Your task to perform on an android device: turn on data saver in the chrome app Image 0: 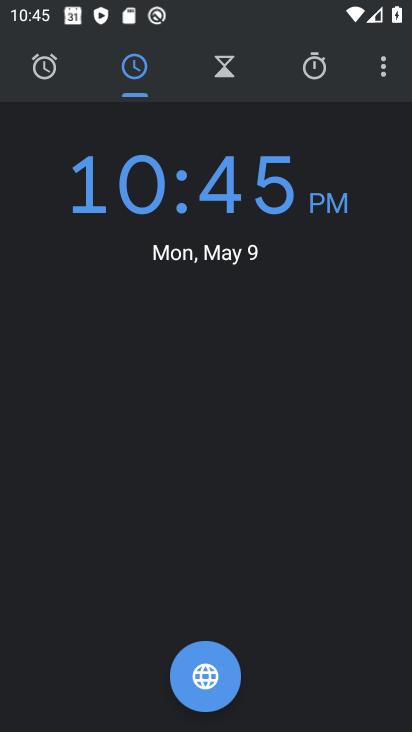
Step 0: press home button
Your task to perform on an android device: turn on data saver in the chrome app Image 1: 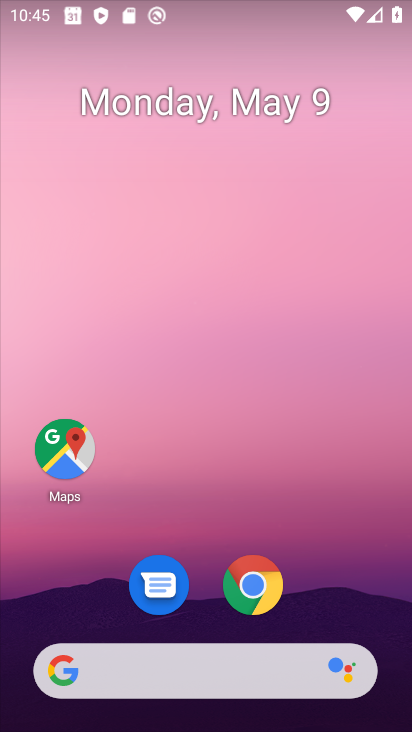
Step 1: click (245, 578)
Your task to perform on an android device: turn on data saver in the chrome app Image 2: 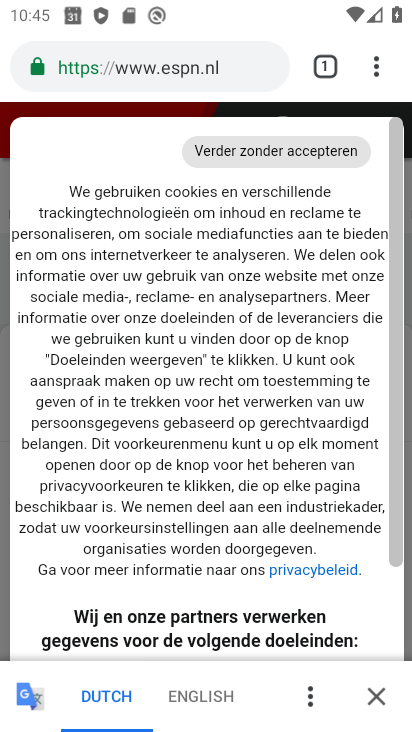
Step 2: click (375, 64)
Your task to perform on an android device: turn on data saver in the chrome app Image 3: 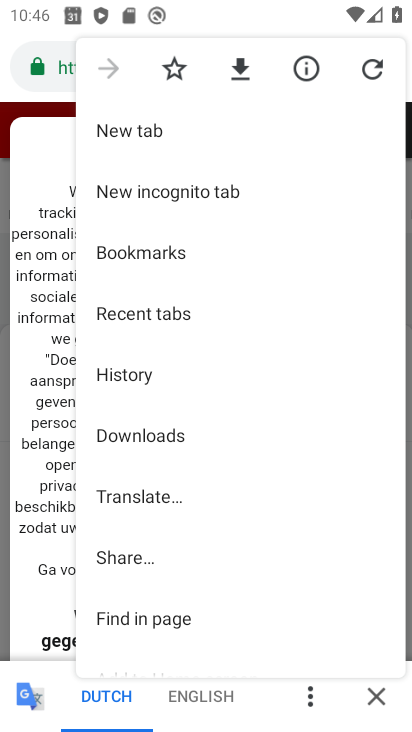
Step 3: drag from (250, 530) to (249, 185)
Your task to perform on an android device: turn on data saver in the chrome app Image 4: 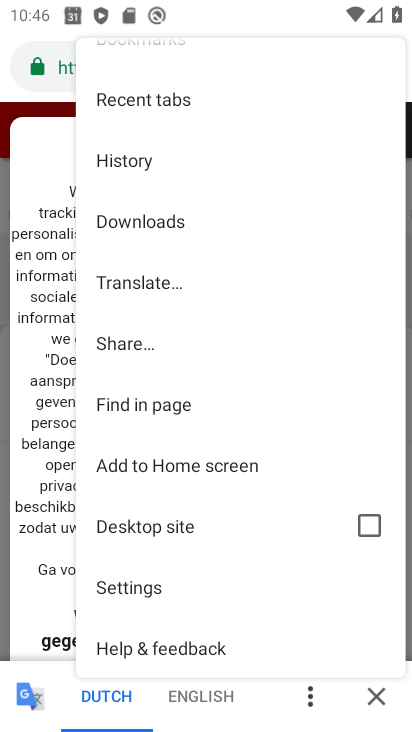
Step 4: click (151, 578)
Your task to perform on an android device: turn on data saver in the chrome app Image 5: 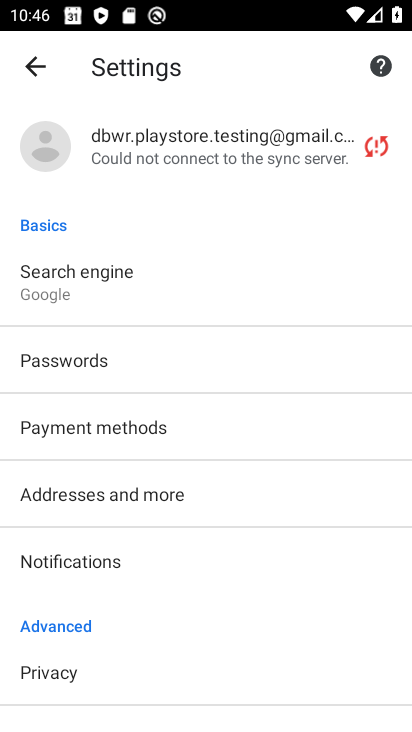
Step 5: drag from (256, 588) to (280, 160)
Your task to perform on an android device: turn on data saver in the chrome app Image 6: 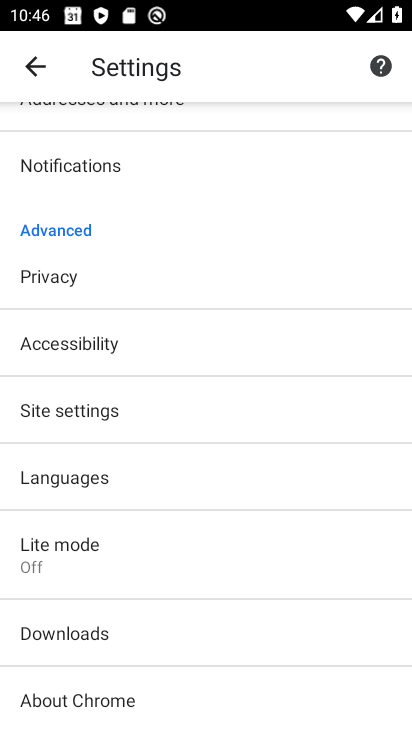
Step 6: click (135, 544)
Your task to perform on an android device: turn on data saver in the chrome app Image 7: 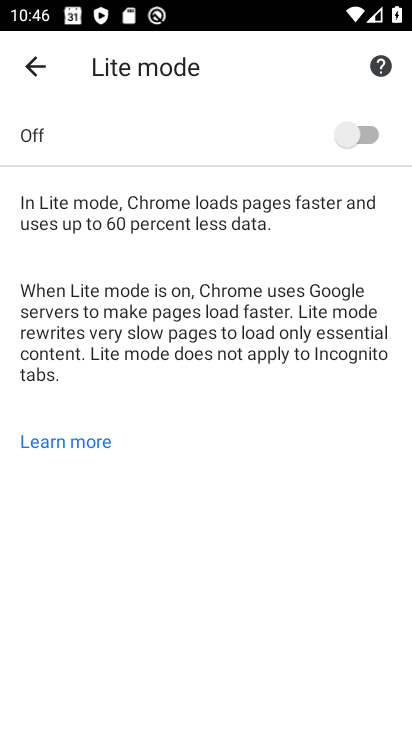
Step 7: click (361, 121)
Your task to perform on an android device: turn on data saver in the chrome app Image 8: 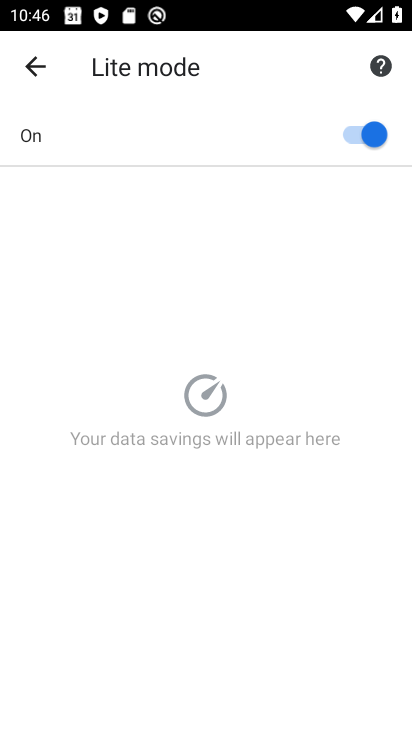
Step 8: task complete